Your task to perform on an android device: toggle priority inbox in the gmail app Image 0: 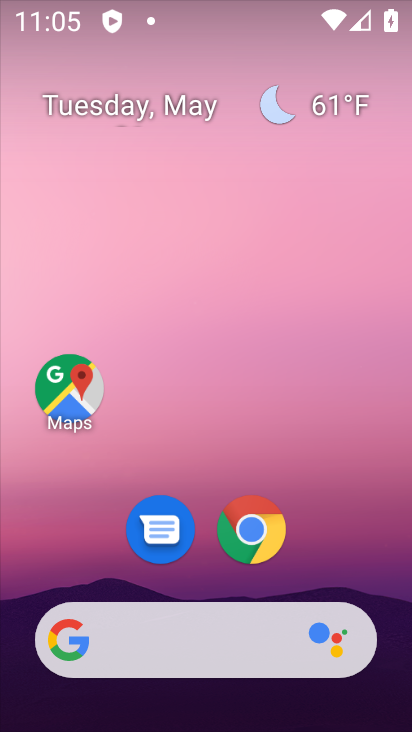
Step 0: drag from (319, 555) to (117, 84)
Your task to perform on an android device: toggle priority inbox in the gmail app Image 1: 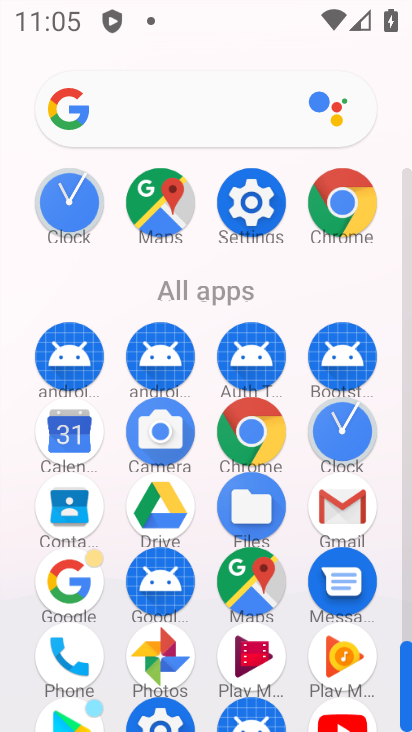
Step 1: click (352, 510)
Your task to perform on an android device: toggle priority inbox in the gmail app Image 2: 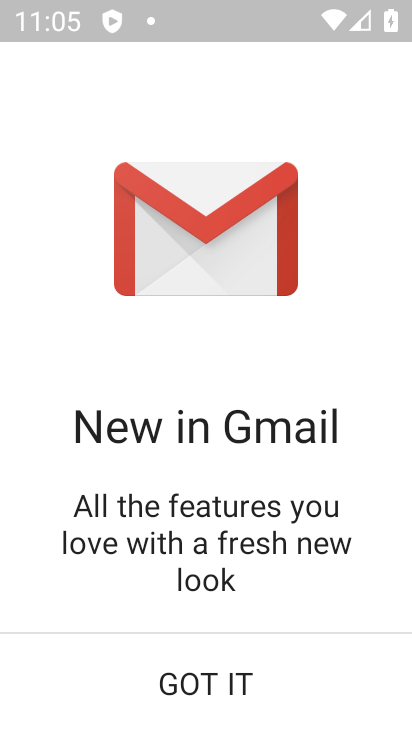
Step 2: click (199, 675)
Your task to perform on an android device: toggle priority inbox in the gmail app Image 3: 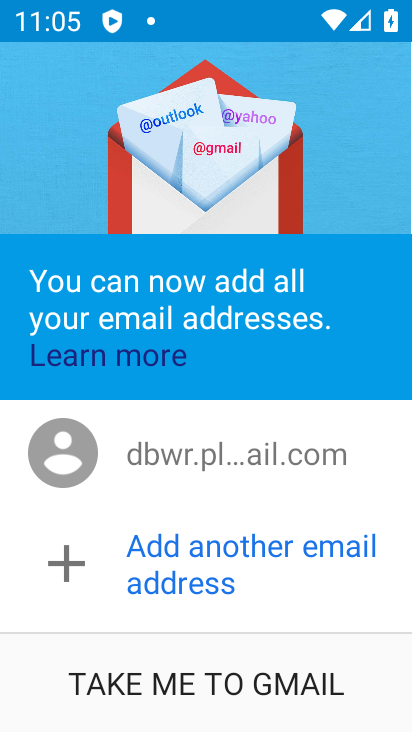
Step 3: click (199, 675)
Your task to perform on an android device: toggle priority inbox in the gmail app Image 4: 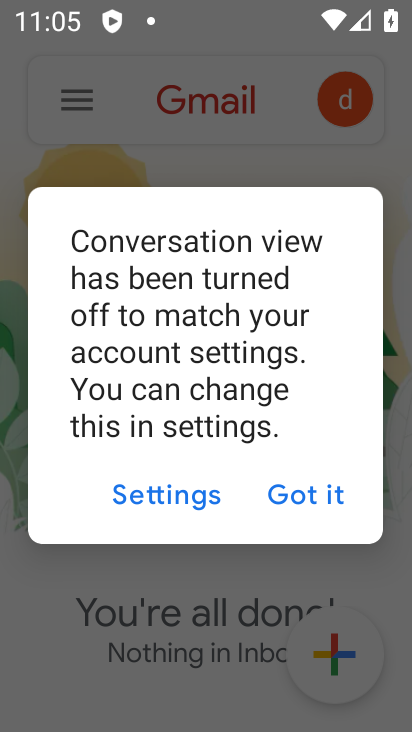
Step 4: click (284, 495)
Your task to perform on an android device: toggle priority inbox in the gmail app Image 5: 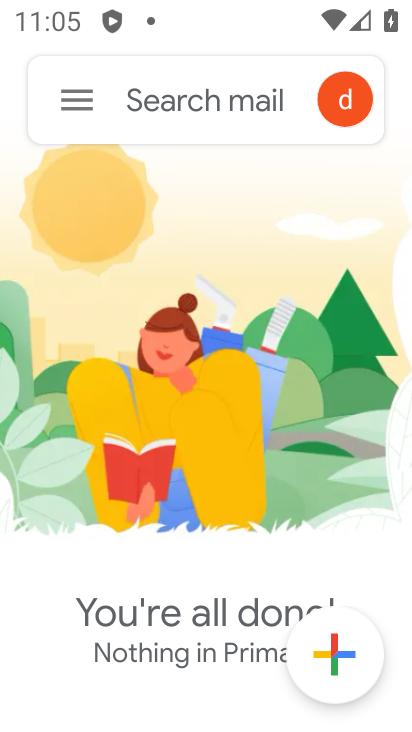
Step 5: click (82, 110)
Your task to perform on an android device: toggle priority inbox in the gmail app Image 6: 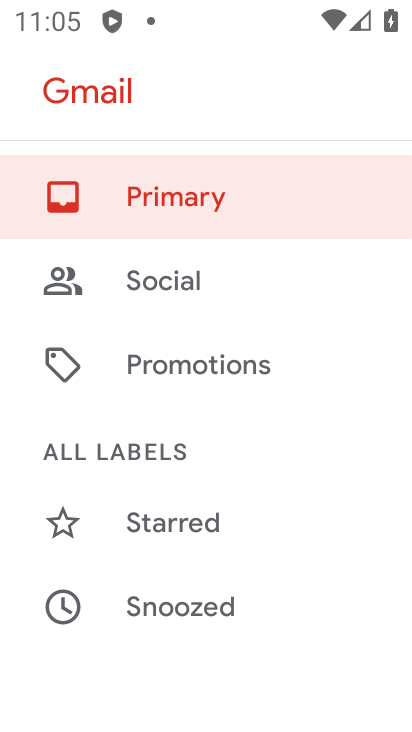
Step 6: drag from (179, 612) to (158, 255)
Your task to perform on an android device: toggle priority inbox in the gmail app Image 7: 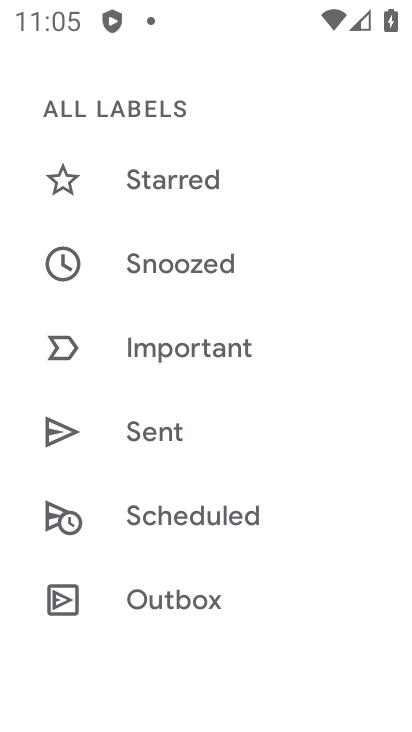
Step 7: drag from (332, 609) to (252, 208)
Your task to perform on an android device: toggle priority inbox in the gmail app Image 8: 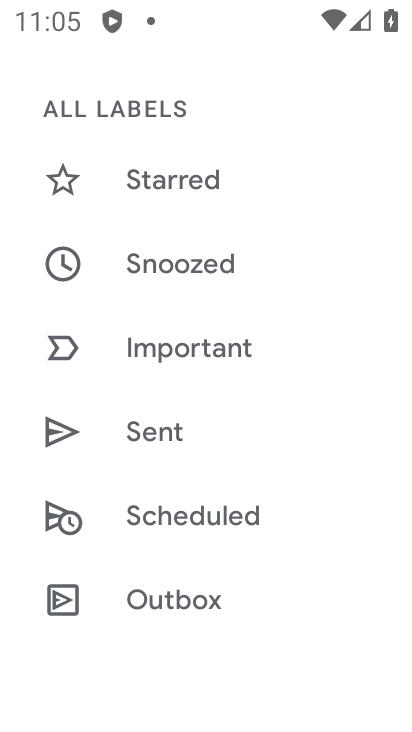
Step 8: drag from (317, 597) to (317, 34)
Your task to perform on an android device: toggle priority inbox in the gmail app Image 9: 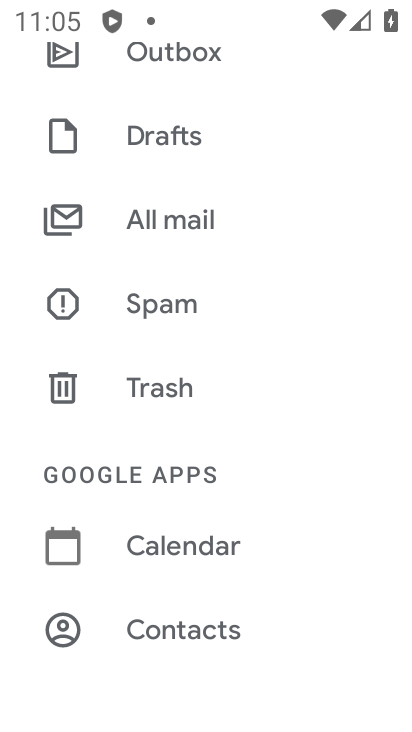
Step 9: drag from (309, 425) to (278, 105)
Your task to perform on an android device: toggle priority inbox in the gmail app Image 10: 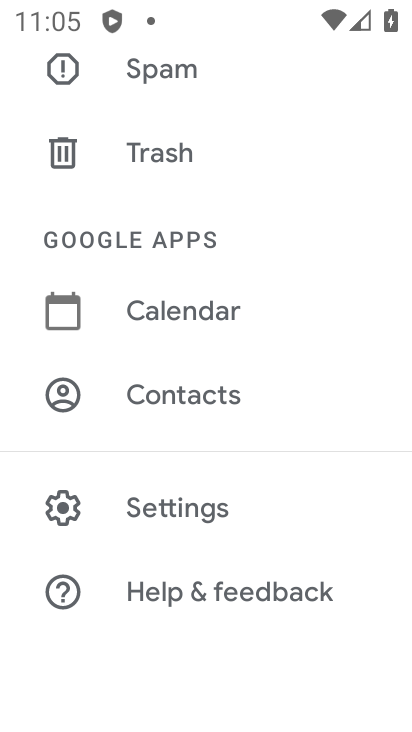
Step 10: click (215, 518)
Your task to perform on an android device: toggle priority inbox in the gmail app Image 11: 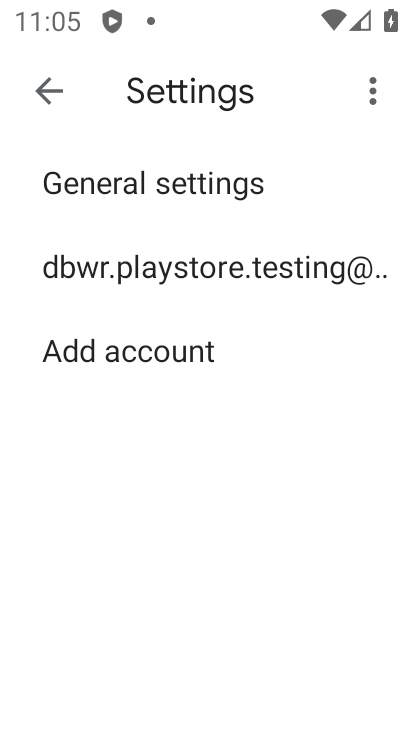
Step 11: click (179, 272)
Your task to perform on an android device: toggle priority inbox in the gmail app Image 12: 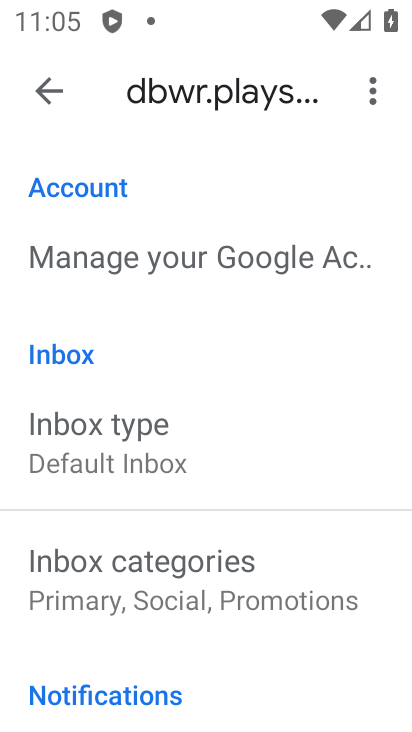
Step 12: click (143, 444)
Your task to perform on an android device: toggle priority inbox in the gmail app Image 13: 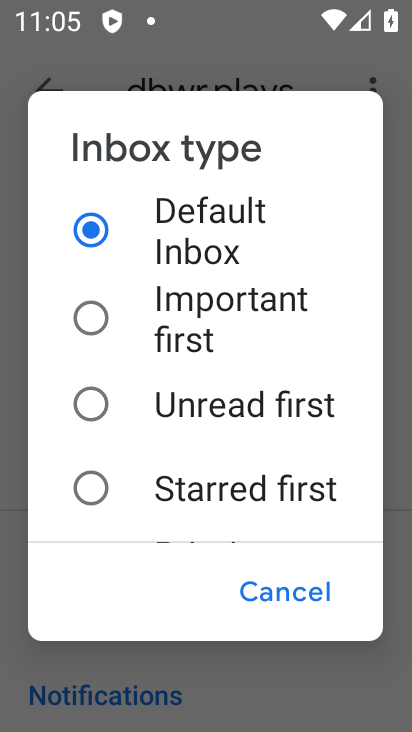
Step 13: drag from (142, 491) to (200, 204)
Your task to perform on an android device: toggle priority inbox in the gmail app Image 14: 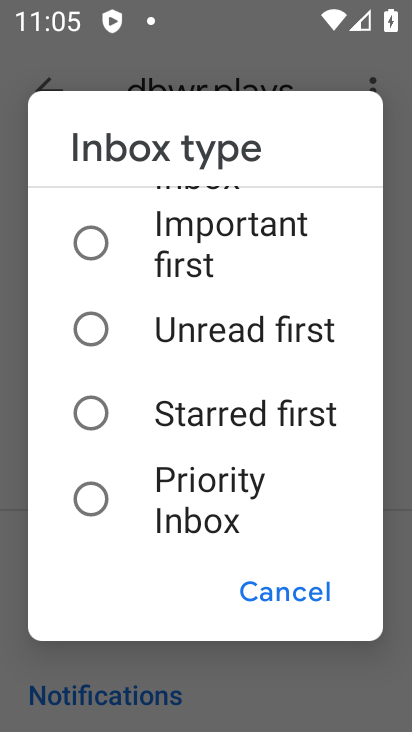
Step 14: click (191, 487)
Your task to perform on an android device: toggle priority inbox in the gmail app Image 15: 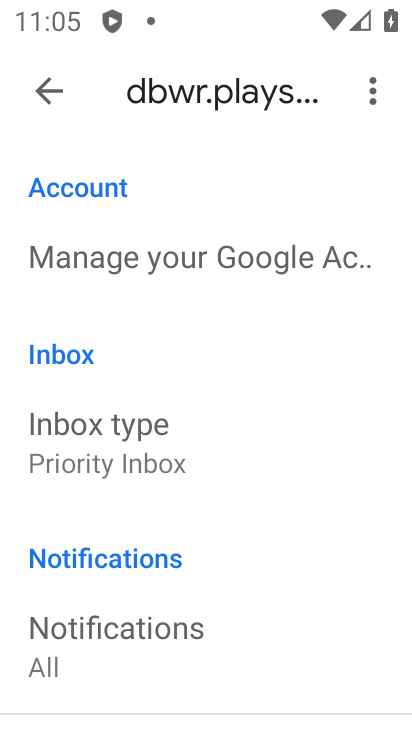
Step 15: task complete